Your task to perform on an android device: Open Google Chrome and click the shortcut for Amazon.com Image 0: 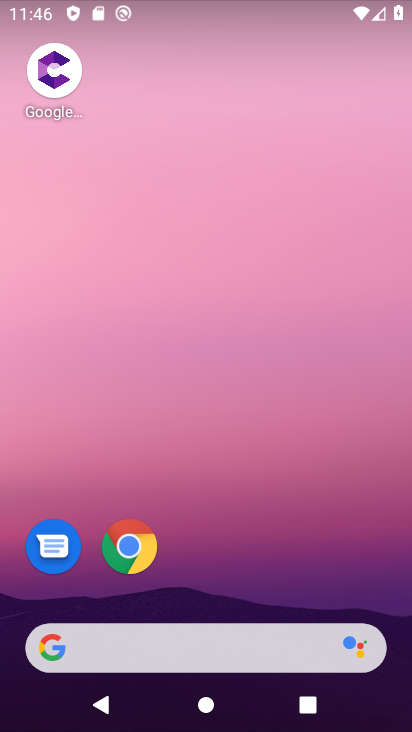
Step 0: press home button
Your task to perform on an android device: Open Google Chrome and click the shortcut for Amazon.com Image 1: 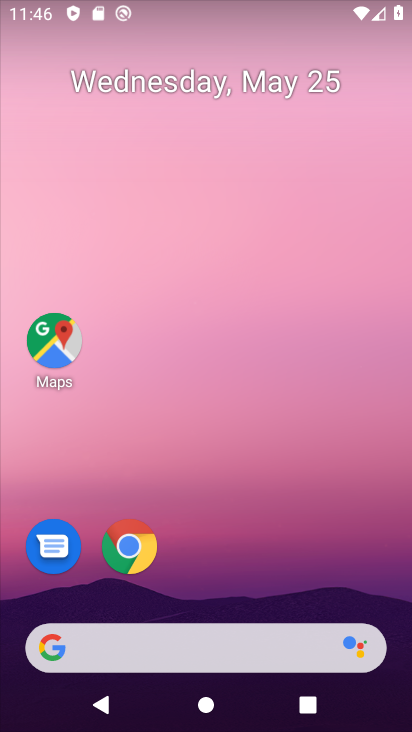
Step 1: click (124, 539)
Your task to perform on an android device: Open Google Chrome and click the shortcut for Amazon.com Image 2: 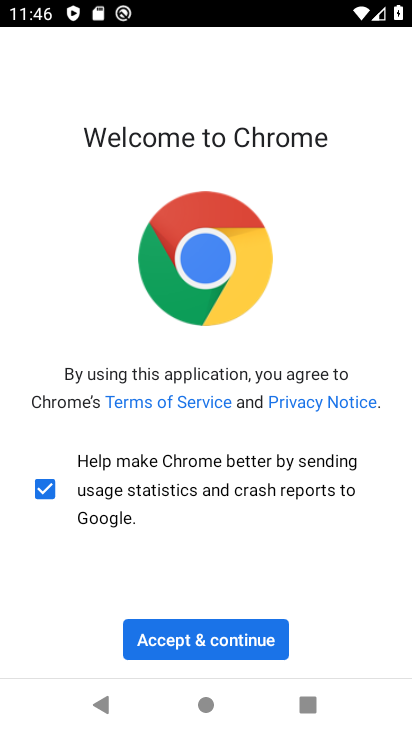
Step 2: click (141, 659)
Your task to perform on an android device: Open Google Chrome and click the shortcut for Amazon.com Image 3: 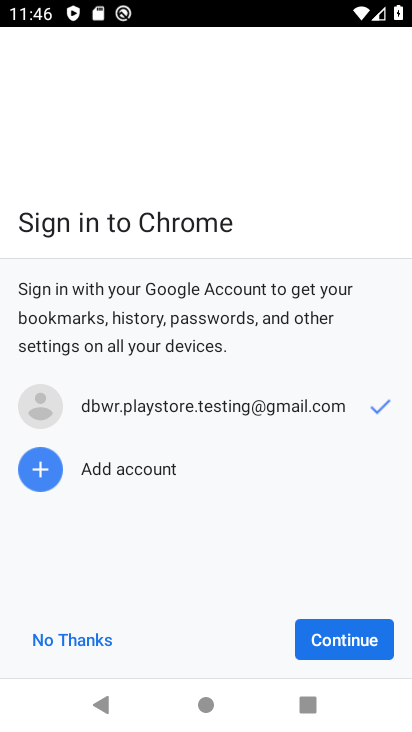
Step 3: click (368, 638)
Your task to perform on an android device: Open Google Chrome and click the shortcut for Amazon.com Image 4: 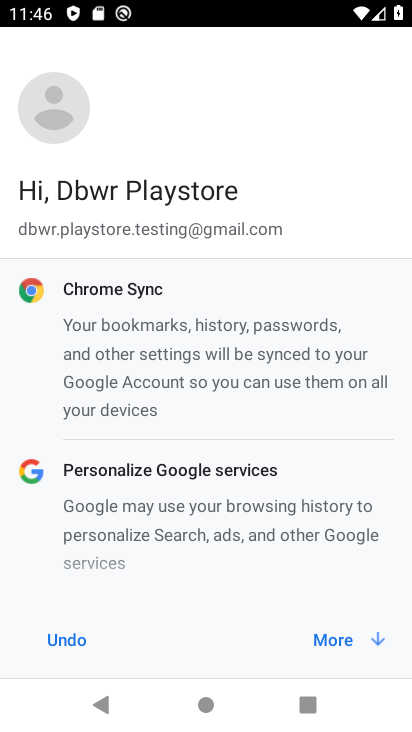
Step 4: click (347, 643)
Your task to perform on an android device: Open Google Chrome and click the shortcut for Amazon.com Image 5: 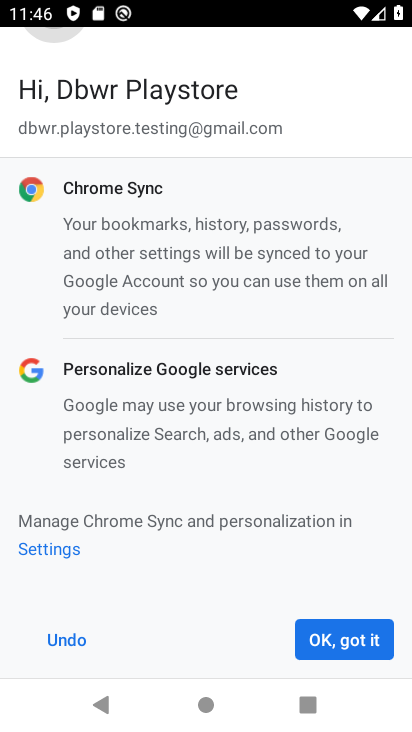
Step 5: click (347, 643)
Your task to perform on an android device: Open Google Chrome and click the shortcut for Amazon.com Image 6: 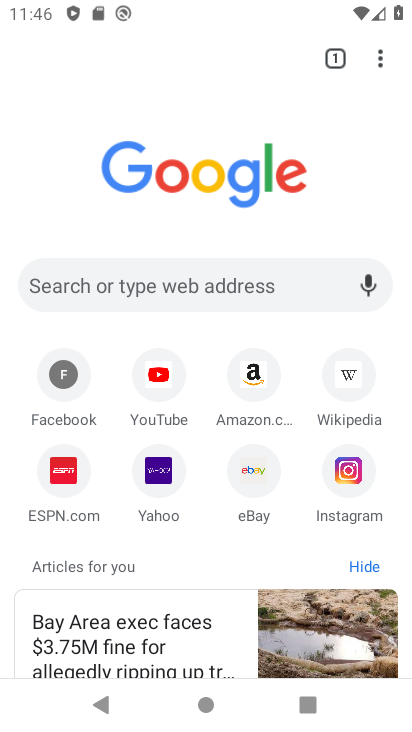
Step 6: click (255, 381)
Your task to perform on an android device: Open Google Chrome and click the shortcut for Amazon.com Image 7: 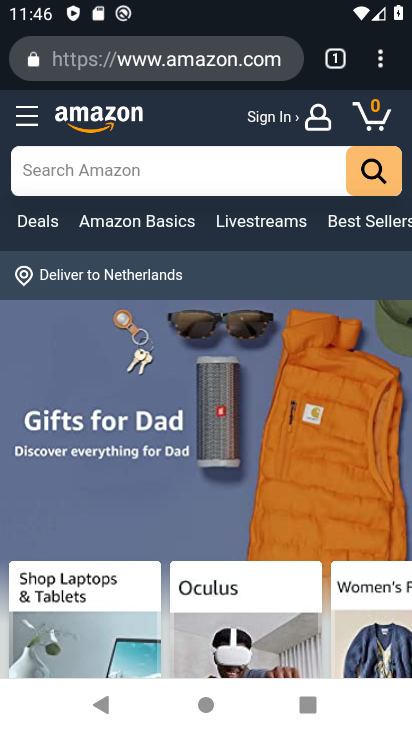
Step 7: task complete